Your task to perform on an android device: turn on the 12-hour format for clock Image 0: 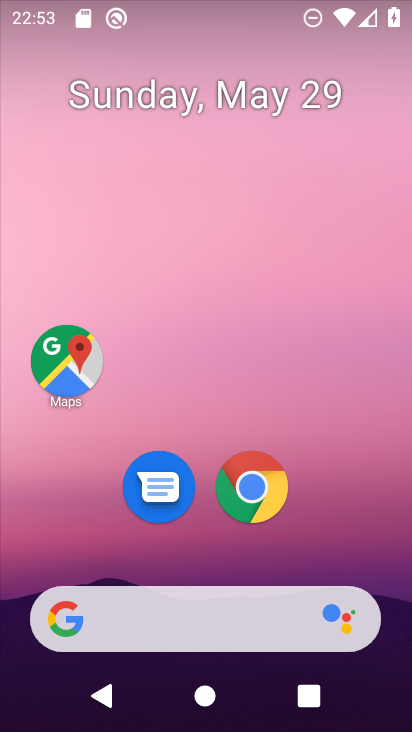
Step 0: drag from (212, 549) to (239, 32)
Your task to perform on an android device: turn on the 12-hour format for clock Image 1: 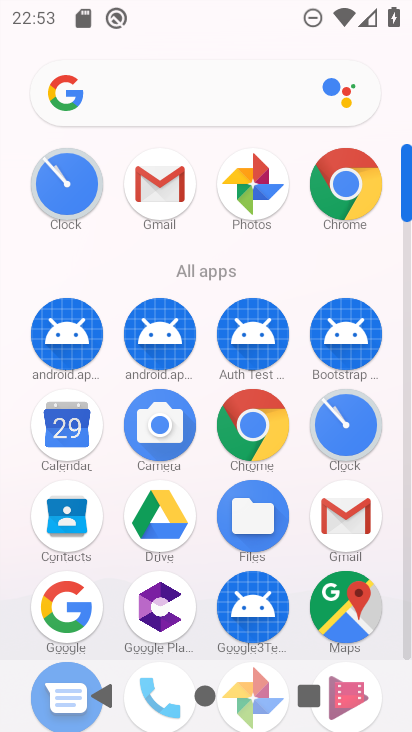
Step 1: click (342, 428)
Your task to perform on an android device: turn on the 12-hour format for clock Image 2: 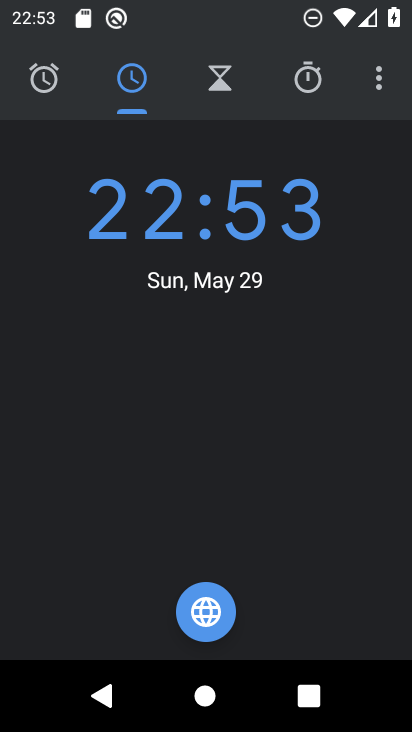
Step 2: click (372, 73)
Your task to perform on an android device: turn on the 12-hour format for clock Image 3: 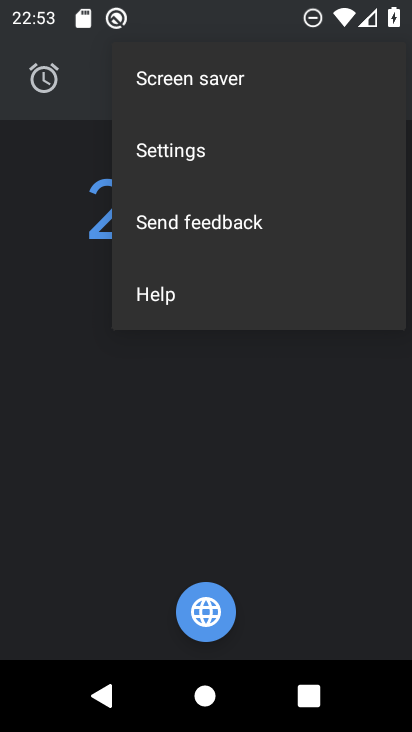
Step 3: click (229, 147)
Your task to perform on an android device: turn on the 12-hour format for clock Image 4: 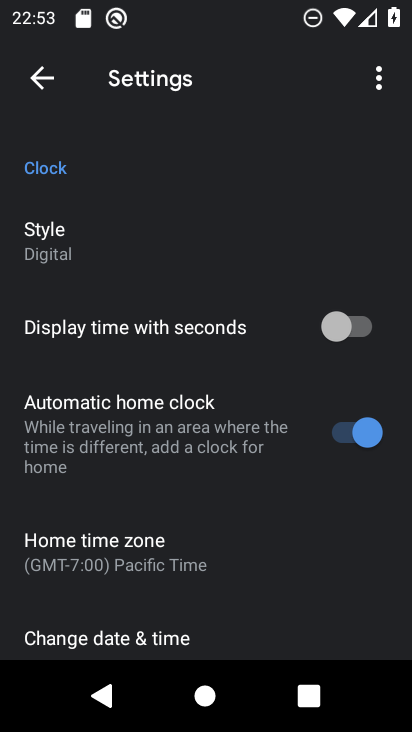
Step 4: click (214, 632)
Your task to perform on an android device: turn on the 12-hour format for clock Image 5: 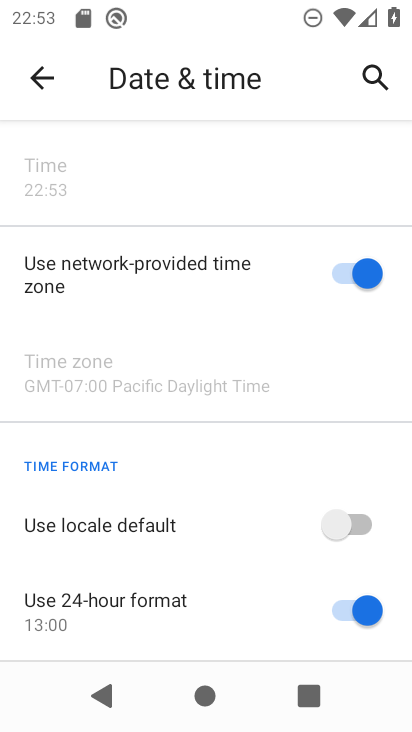
Step 5: click (345, 524)
Your task to perform on an android device: turn on the 12-hour format for clock Image 6: 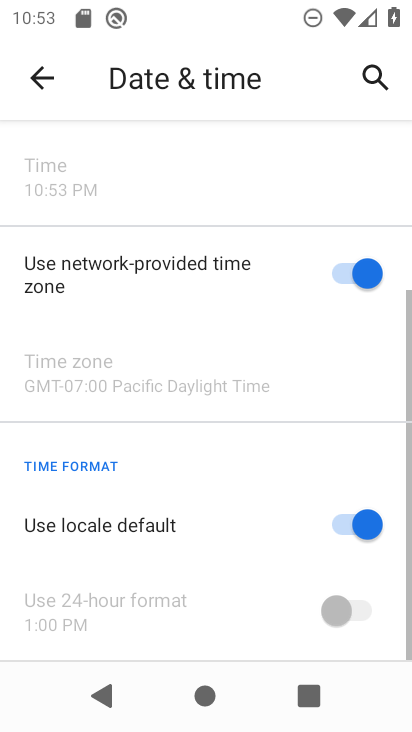
Step 6: task complete